Your task to perform on an android device: Clear all items from cart on amazon. Search for "macbook pro" on amazon, select the first entry, and add it to the cart. Image 0: 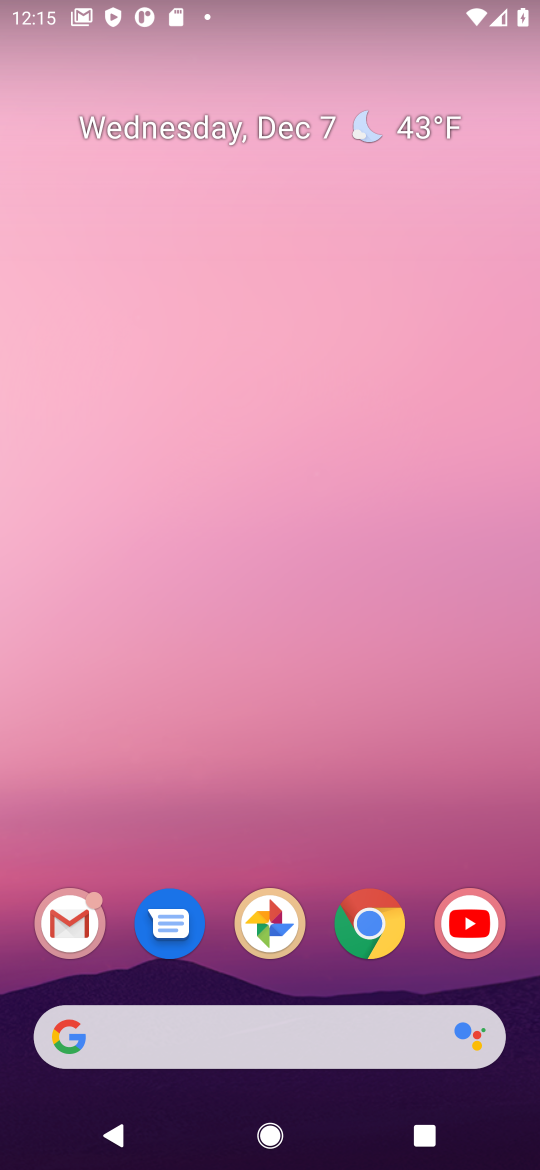
Step 0: click (369, 921)
Your task to perform on an android device: Clear all items from cart on amazon. Search for "macbook pro" on amazon, select the first entry, and add it to the cart. Image 1: 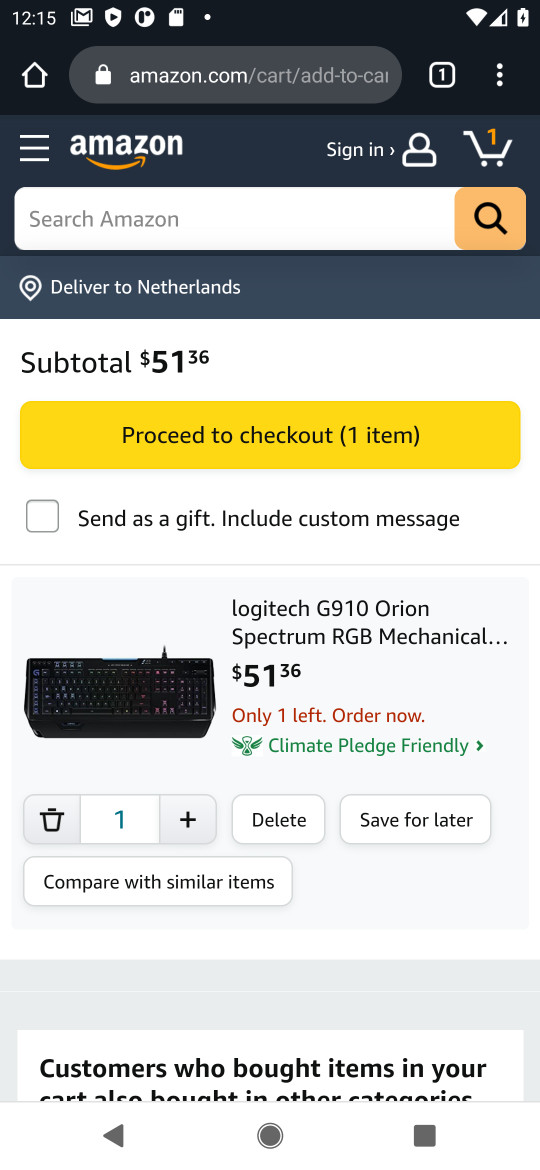
Step 1: click (485, 154)
Your task to perform on an android device: Clear all items from cart on amazon. Search for "macbook pro" on amazon, select the first entry, and add it to the cart. Image 2: 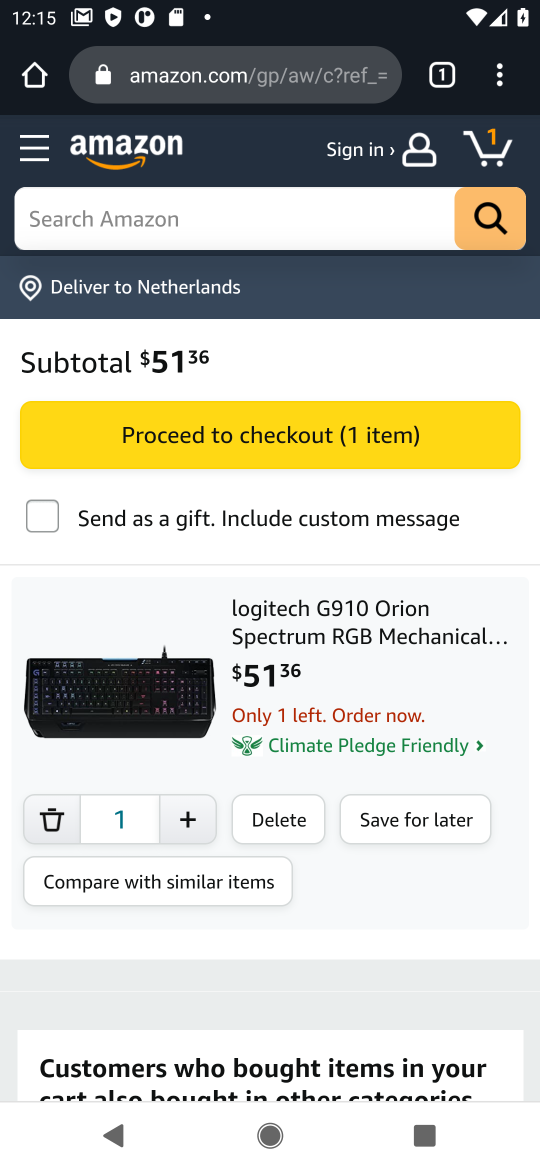
Step 2: click (287, 819)
Your task to perform on an android device: Clear all items from cart on amazon. Search for "macbook pro" on amazon, select the first entry, and add it to the cart. Image 3: 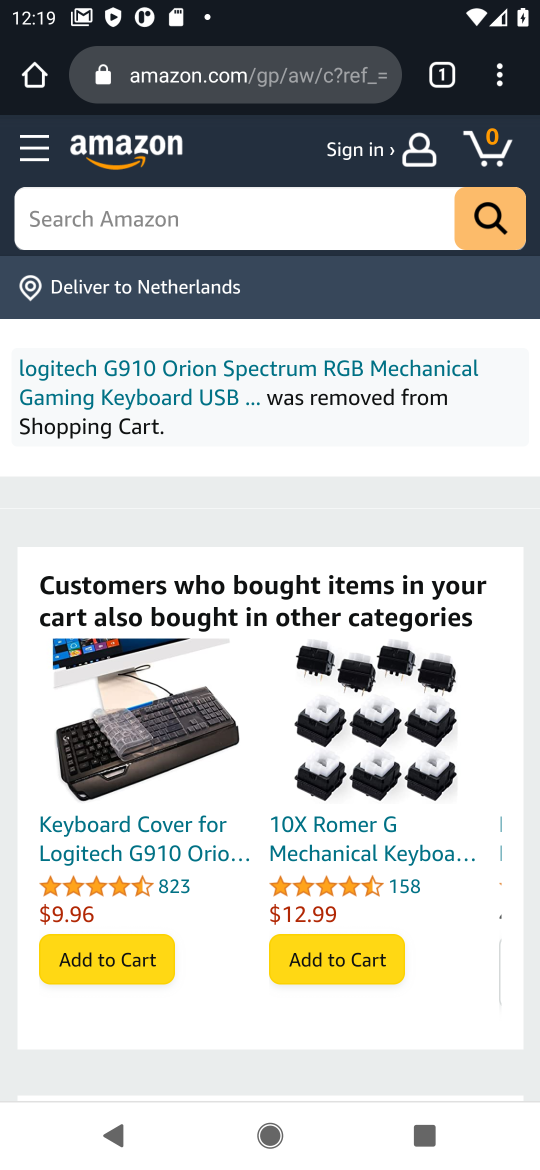
Step 3: click (339, 221)
Your task to perform on an android device: Clear all items from cart on amazon. Search for "macbook pro" on amazon, select the first entry, and add it to the cart. Image 4: 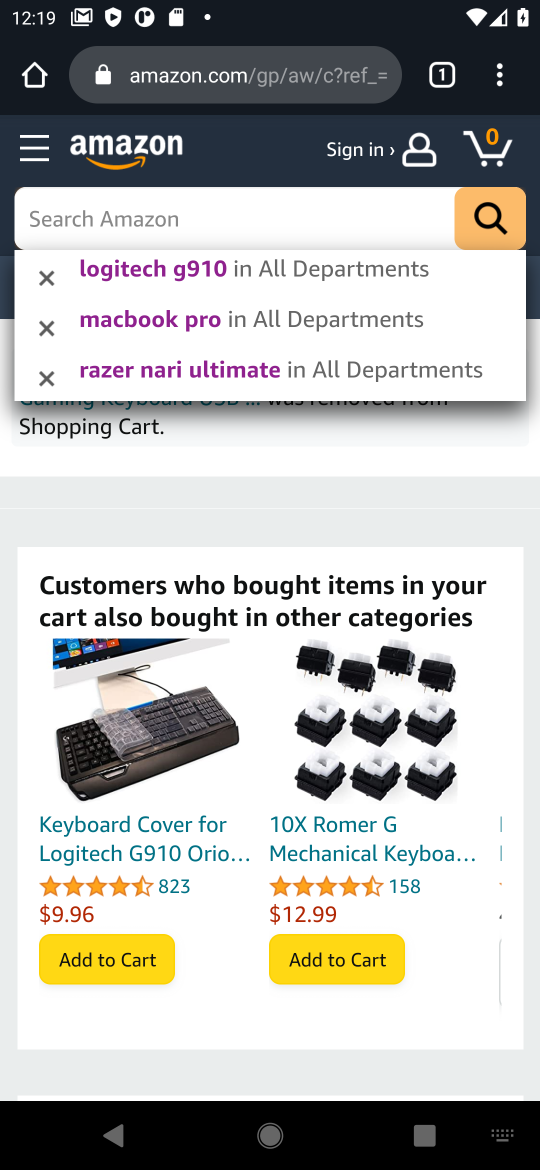
Step 4: type "macbook pro"
Your task to perform on an android device: Clear all items from cart on amazon. Search for "macbook pro" on amazon, select the first entry, and add it to the cart. Image 5: 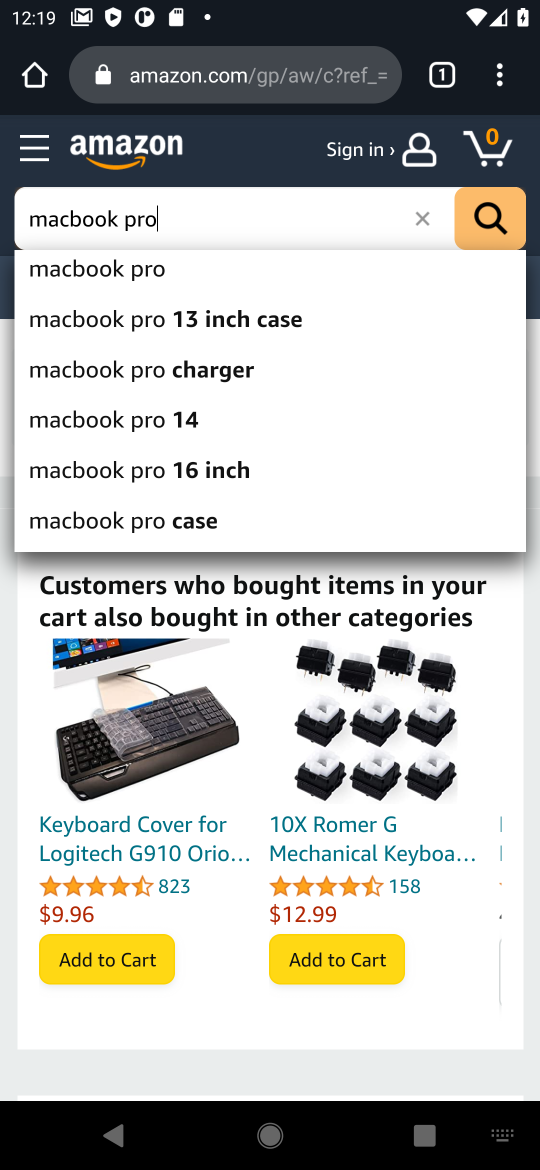
Step 5: click (138, 276)
Your task to perform on an android device: Clear all items from cart on amazon. Search for "macbook pro" on amazon, select the first entry, and add it to the cart. Image 6: 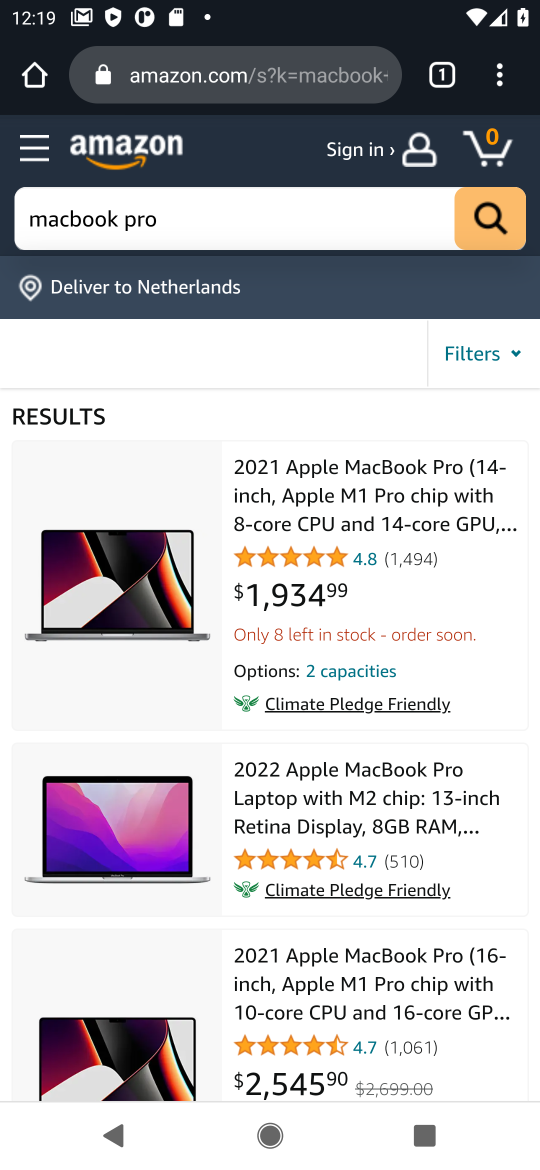
Step 6: click (132, 541)
Your task to perform on an android device: Clear all items from cart on amazon. Search for "macbook pro" on amazon, select the first entry, and add it to the cart. Image 7: 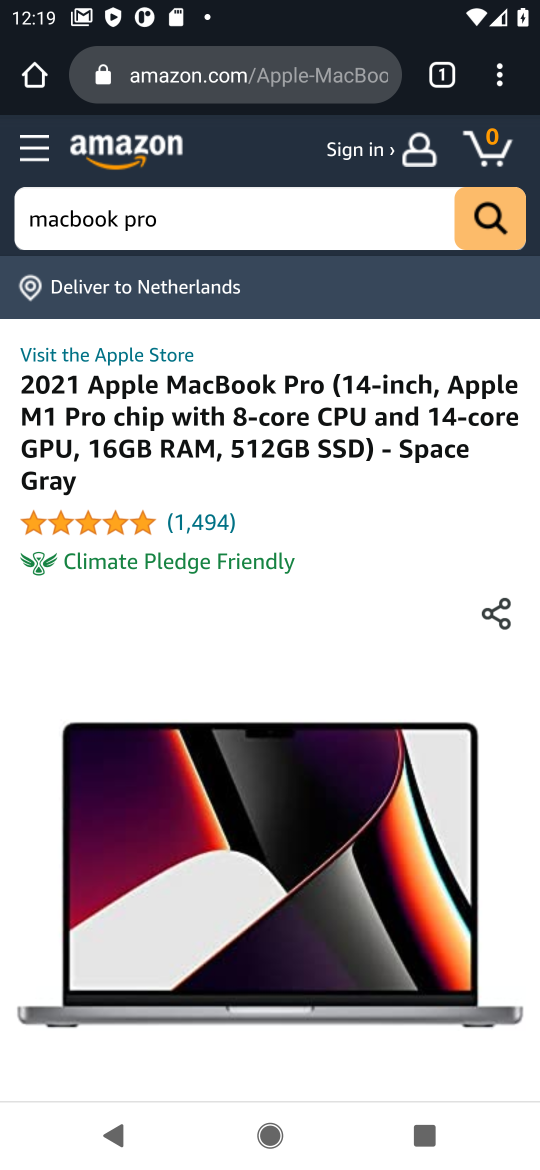
Step 7: task complete